Your task to perform on an android device: turn off smart reply in the gmail app Image 0: 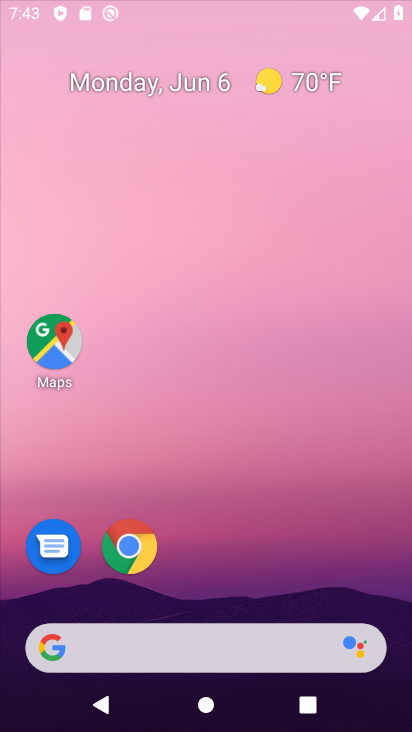
Step 0: drag from (182, 578) to (383, 26)
Your task to perform on an android device: turn off smart reply in the gmail app Image 1: 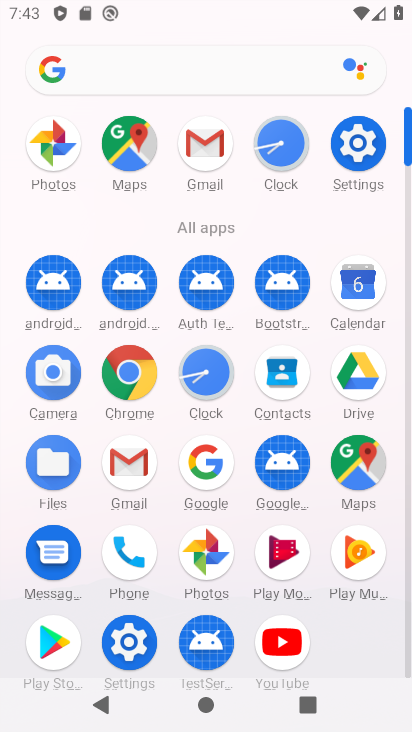
Step 1: click (118, 456)
Your task to perform on an android device: turn off smart reply in the gmail app Image 2: 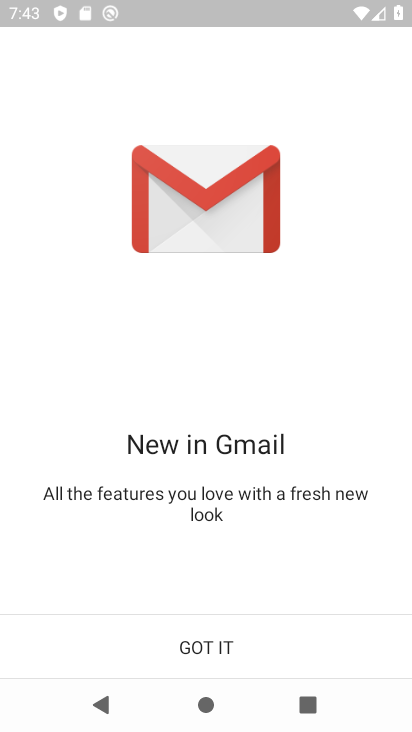
Step 2: click (214, 632)
Your task to perform on an android device: turn off smart reply in the gmail app Image 3: 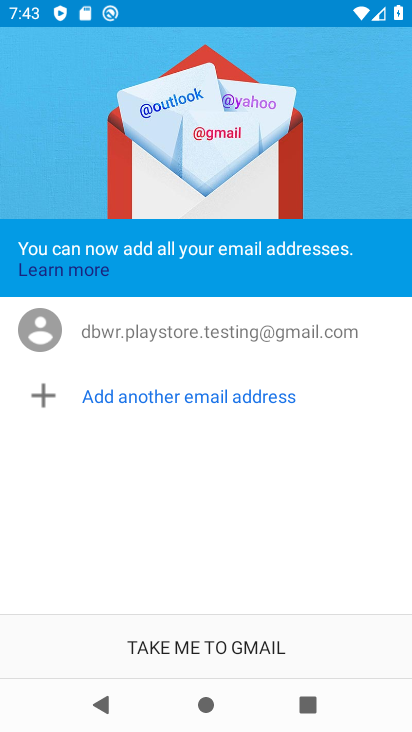
Step 3: click (231, 634)
Your task to perform on an android device: turn off smart reply in the gmail app Image 4: 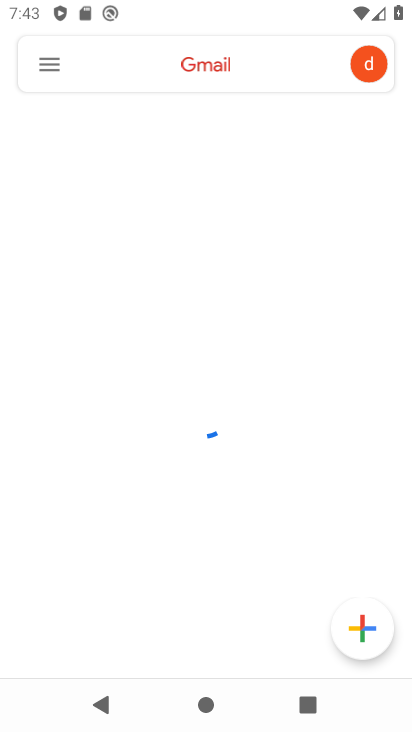
Step 4: click (38, 59)
Your task to perform on an android device: turn off smart reply in the gmail app Image 5: 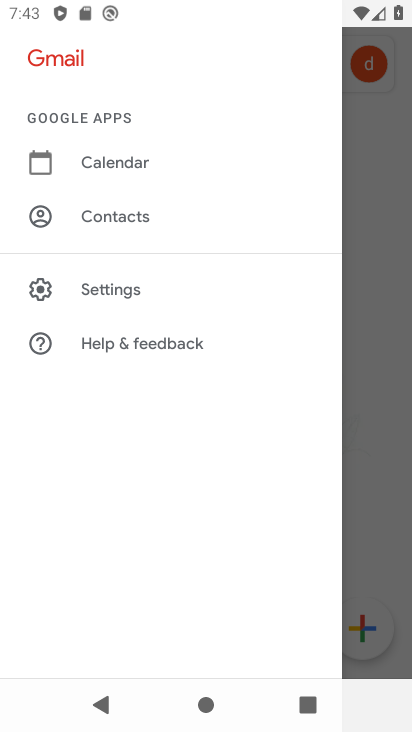
Step 5: click (126, 286)
Your task to perform on an android device: turn off smart reply in the gmail app Image 6: 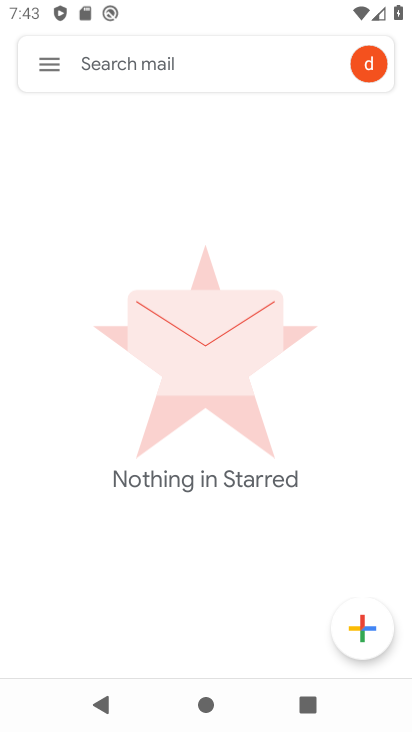
Step 6: click (38, 49)
Your task to perform on an android device: turn off smart reply in the gmail app Image 7: 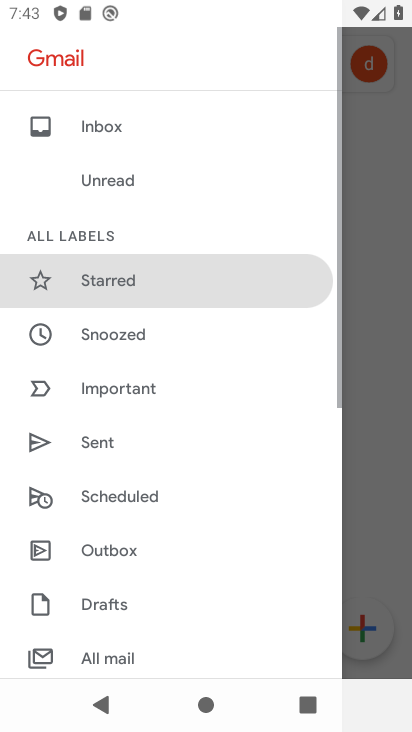
Step 7: drag from (120, 621) to (252, 80)
Your task to perform on an android device: turn off smart reply in the gmail app Image 8: 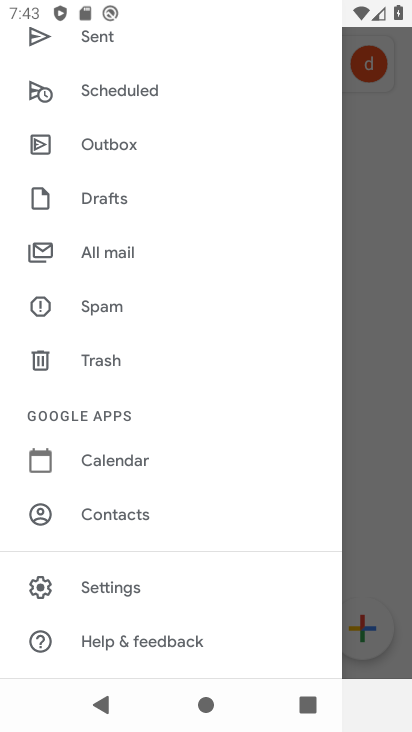
Step 8: click (101, 588)
Your task to perform on an android device: turn off smart reply in the gmail app Image 9: 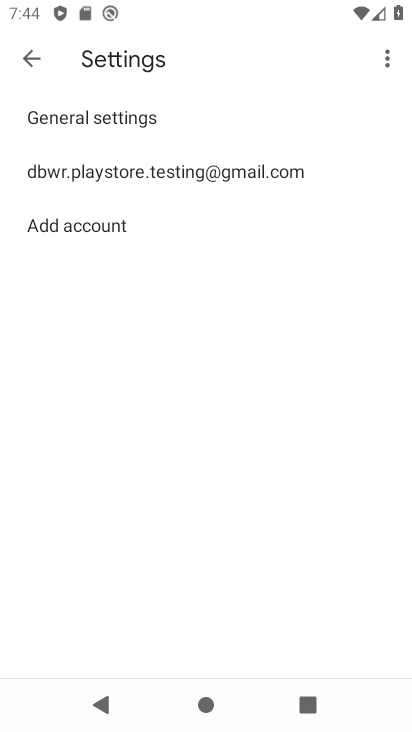
Step 9: click (180, 174)
Your task to perform on an android device: turn off smart reply in the gmail app Image 10: 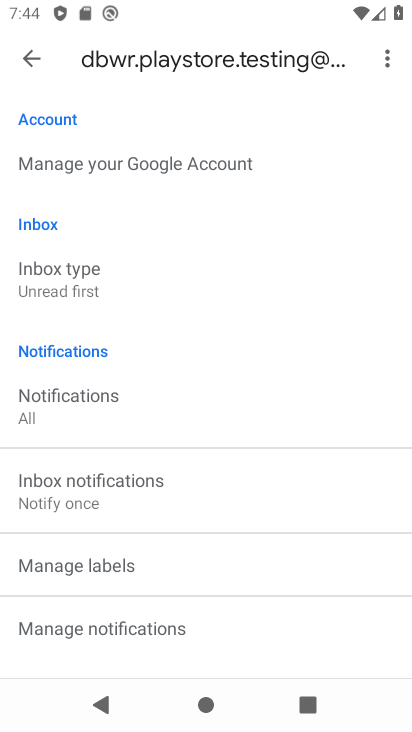
Step 10: drag from (210, 628) to (325, 189)
Your task to perform on an android device: turn off smart reply in the gmail app Image 11: 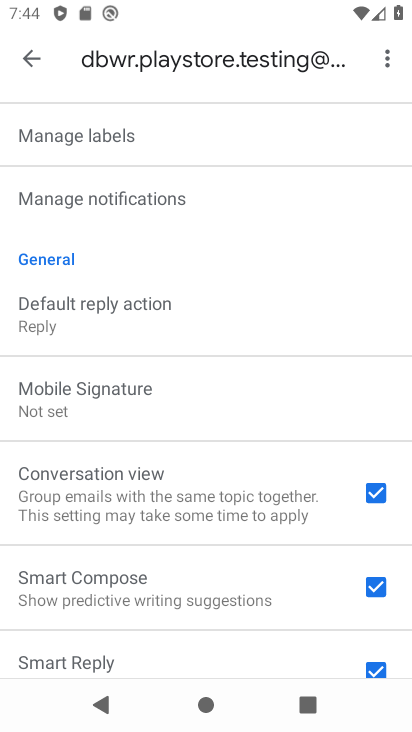
Step 11: drag from (240, 578) to (300, 217)
Your task to perform on an android device: turn off smart reply in the gmail app Image 12: 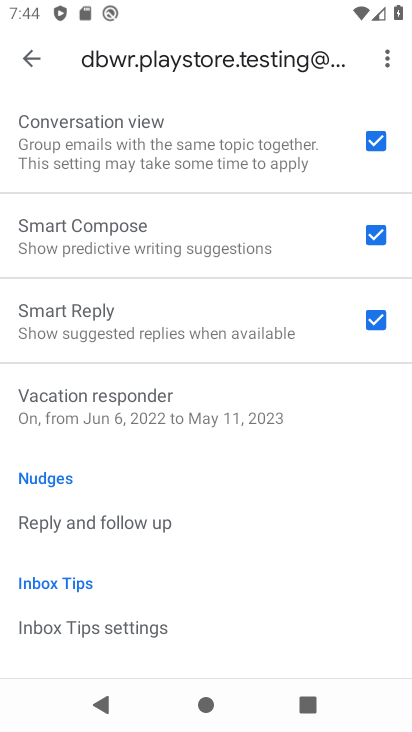
Step 12: click (381, 321)
Your task to perform on an android device: turn off smart reply in the gmail app Image 13: 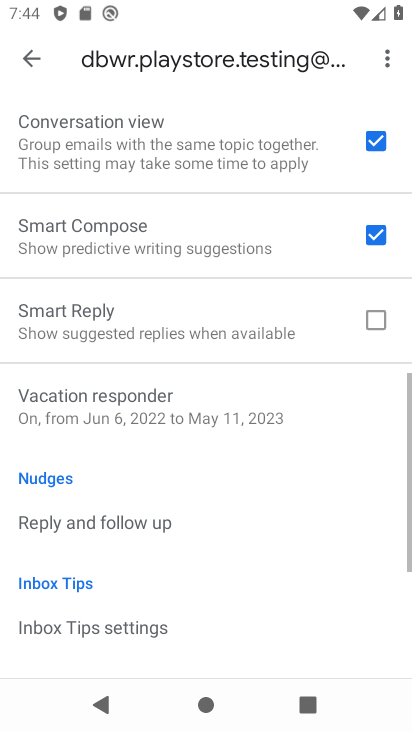
Step 13: task complete